Your task to perform on an android device: What's the weather going to be this weekend? Image 0: 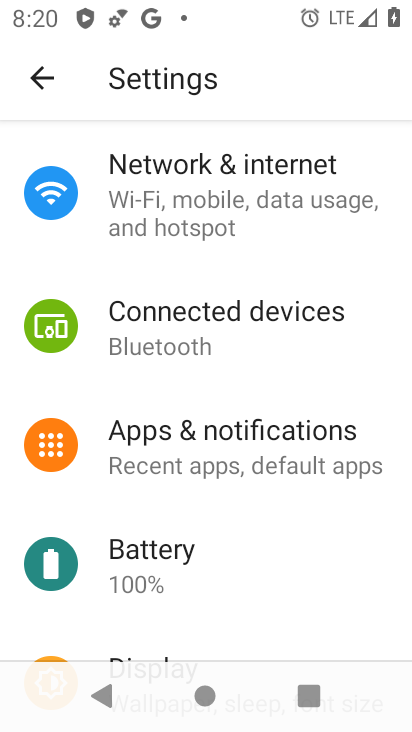
Step 0: press home button
Your task to perform on an android device: What's the weather going to be this weekend? Image 1: 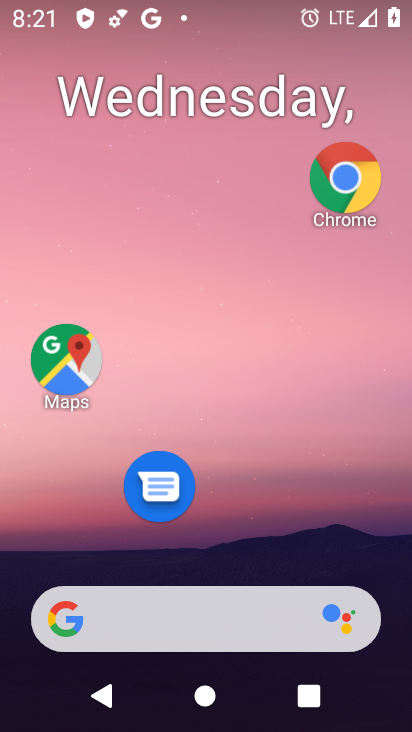
Step 1: drag from (213, 651) to (298, 111)
Your task to perform on an android device: What's the weather going to be this weekend? Image 2: 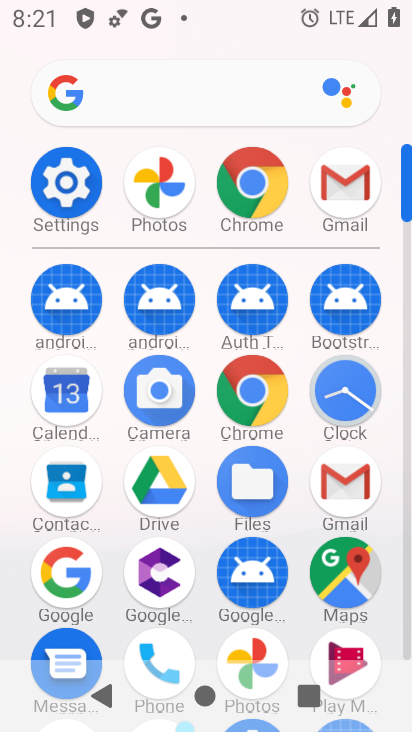
Step 2: click (87, 579)
Your task to perform on an android device: What's the weather going to be this weekend? Image 3: 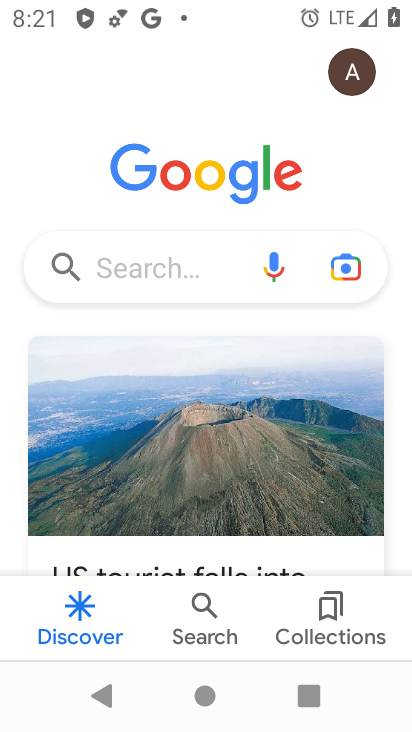
Step 3: click (205, 279)
Your task to perform on an android device: What's the weather going to be this weekend? Image 4: 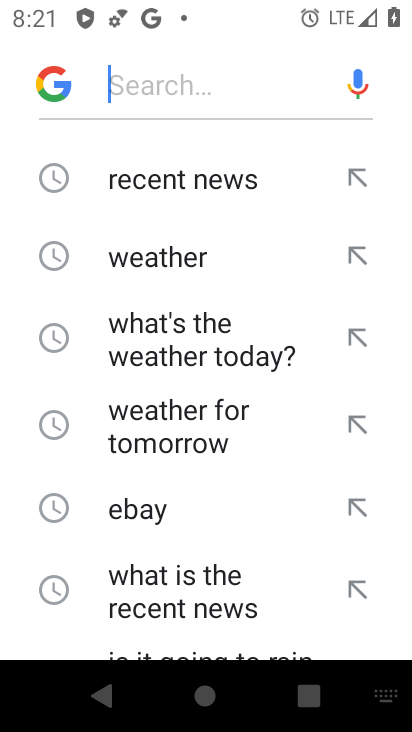
Step 4: click (229, 256)
Your task to perform on an android device: What's the weather going to be this weekend? Image 5: 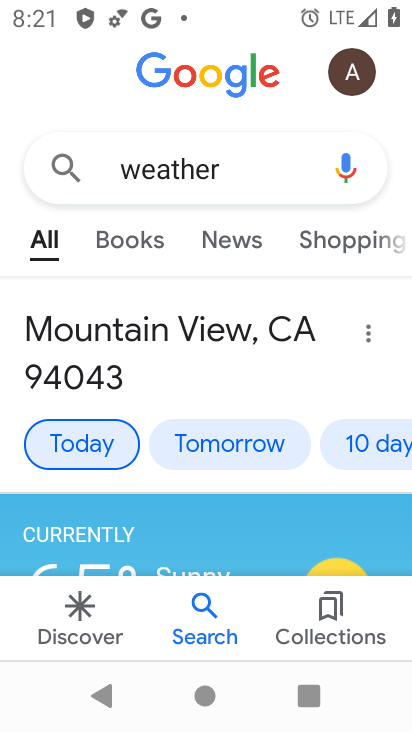
Step 5: click (349, 452)
Your task to perform on an android device: What's the weather going to be this weekend? Image 6: 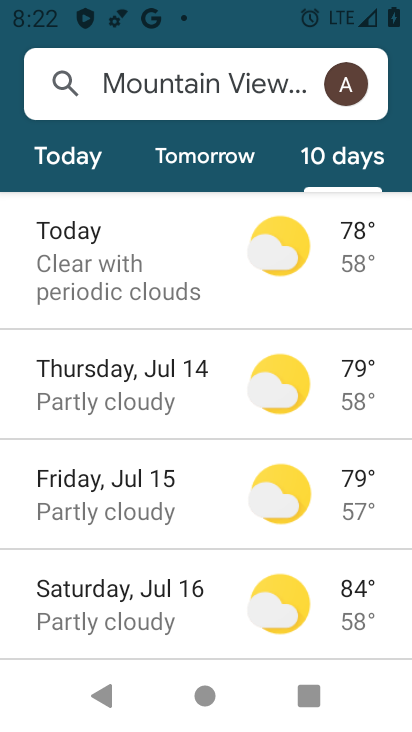
Step 6: task complete